Your task to perform on an android device: see sites visited before in the chrome app Image 0: 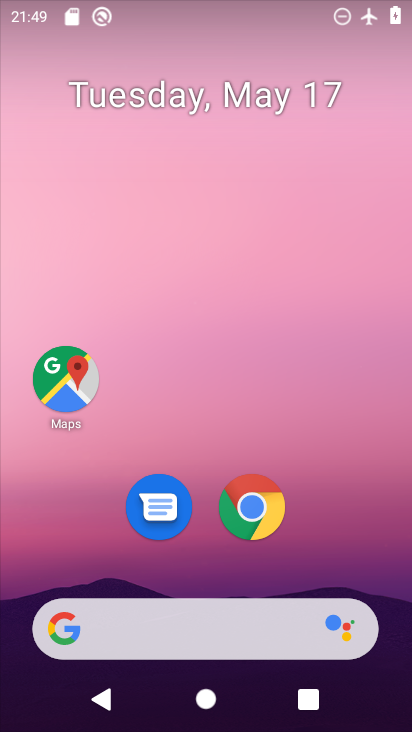
Step 0: click (251, 512)
Your task to perform on an android device: see sites visited before in the chrome app Image 1: 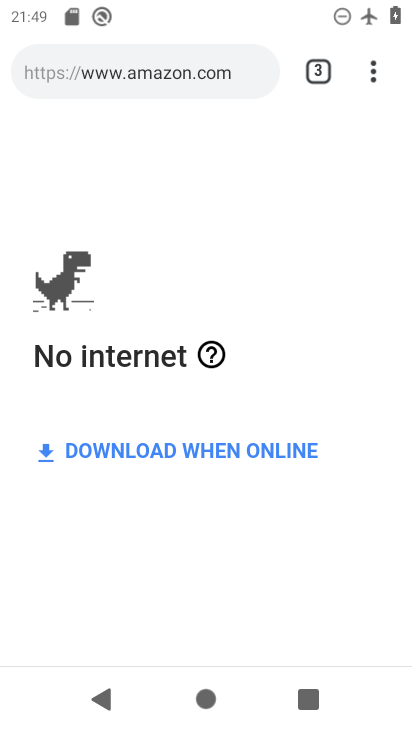
Step 1: click (374, 72)
Your task to perform on an android device: see sites visited before in the chrome app Image 2: 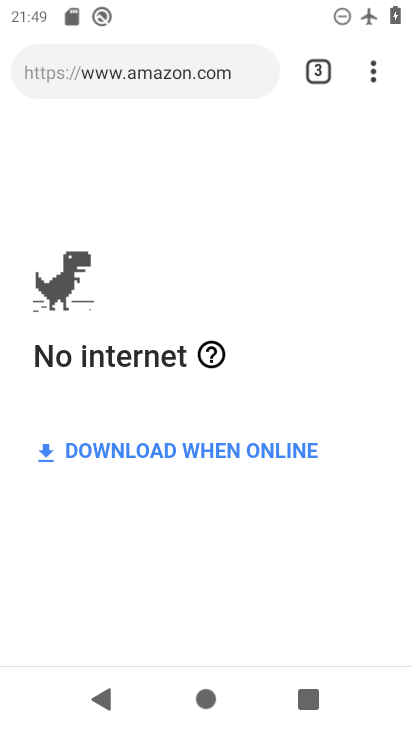
Step 2: click (374, 71)
Your task to perform on an android device: see sites visited before in the chrome app Image 3: 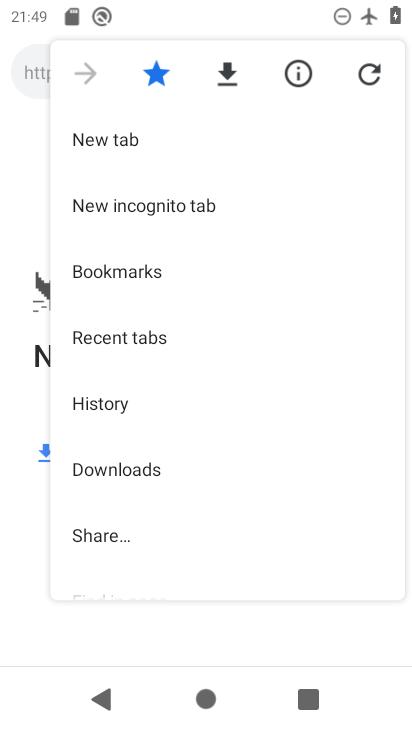
Step 3: click (108, 410)
Your task to perform on an android device: see sites visited before in the chrome app Image 4: 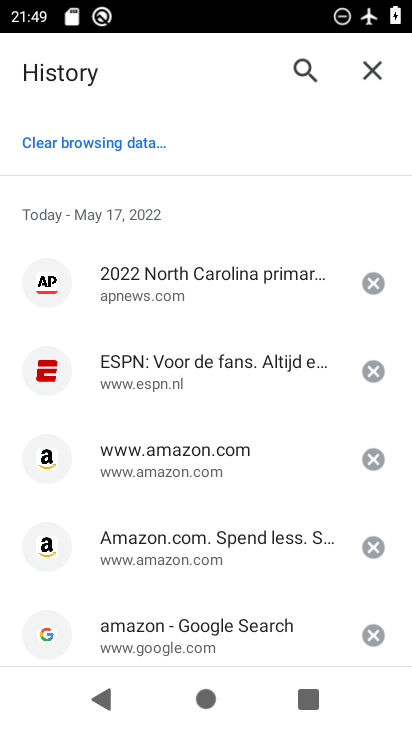
Step 4: task complete